Your task to perform on an android device: Go to privacy settings Image 0: 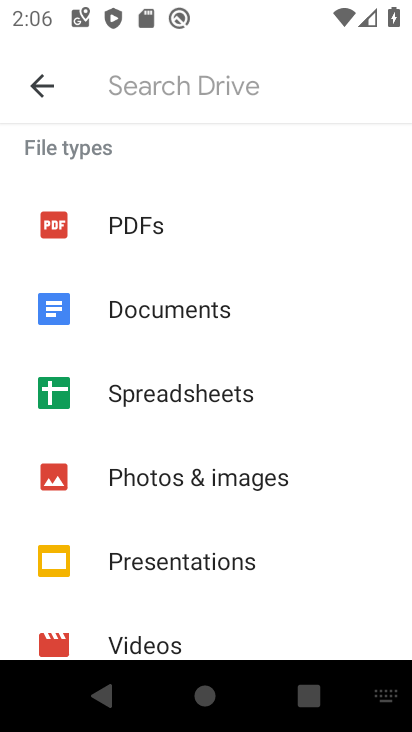
Step 0: press home button
Your task to perform on an android device: Go to privacy settings Image 1: 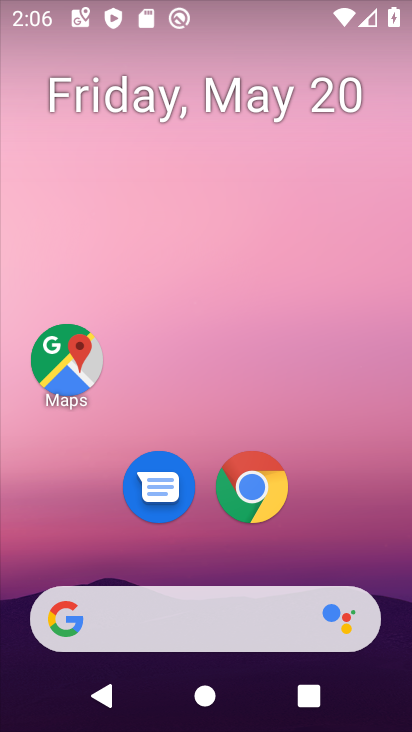
Step 1: drag from (336, 501) to (354, 35)
Your task to perform on an android device: Go to privacy settings Image 2: 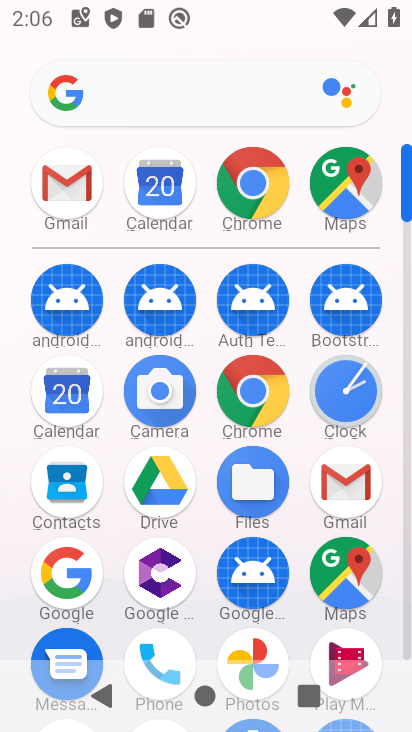
Step 2: drag from (400, 617) to (408, 297)
Your task to perform on an android device: Go to privacy settings Image 3: 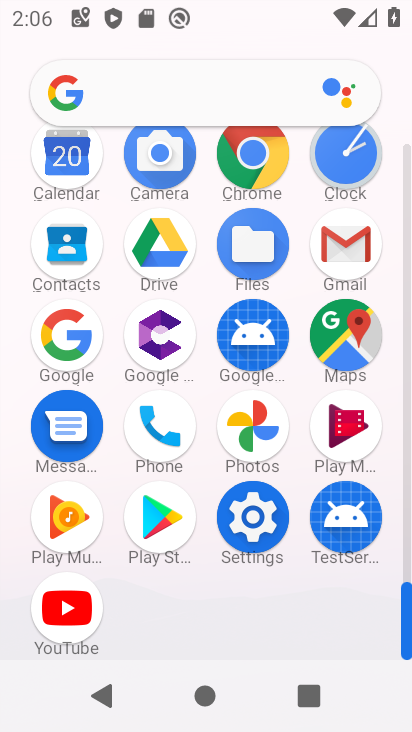
Step 3: drag from (378, 558) to (409, 276)
Your task to perform on an android device: Go to privacy settings Image 4: 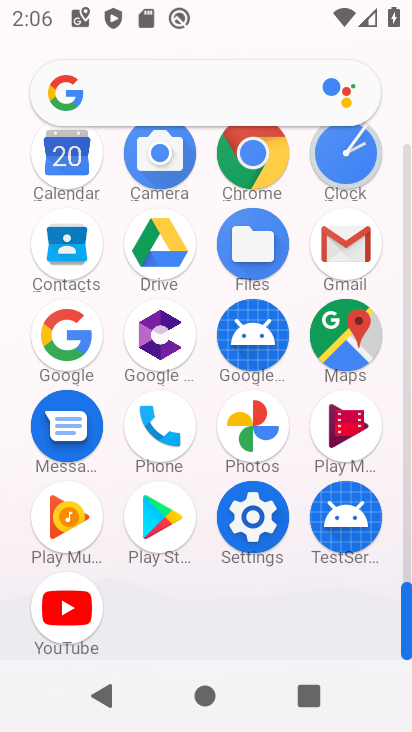
Step 4: click (261, 525)
Your task to perform on an android device: Go to privacy settings Image 5: 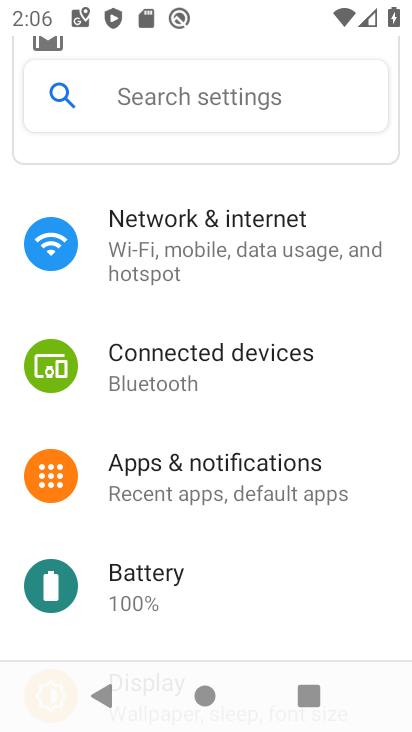
Step 5: drag from (234, 573) to (281, 153)
Your task to perform on an android device: Go to privacy settings Image 6: 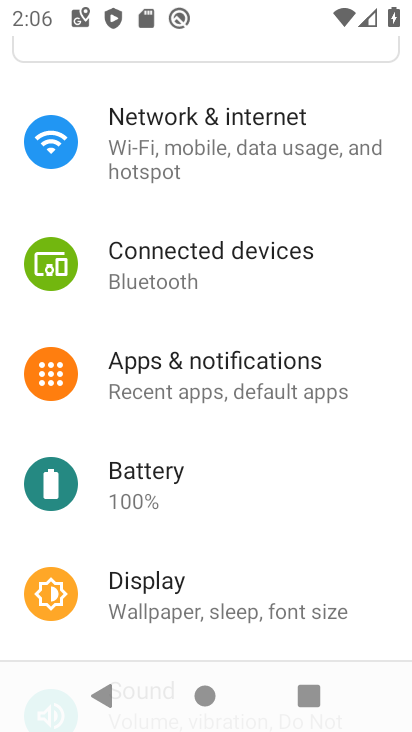
Step 6: drag from (178, 559) to (241, 152)
Your task to perform on an android device: Go to privacy settings Image 7: 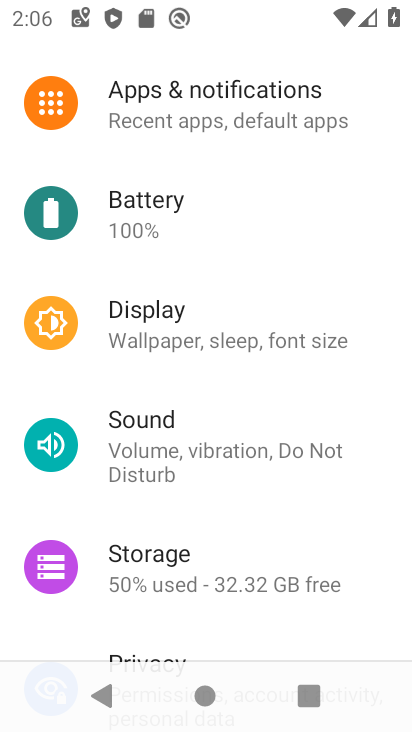
Step 7: drag from (206, 533) to (262, 195)
Your task to perform on an android device: Go to privacy settings Image 8: 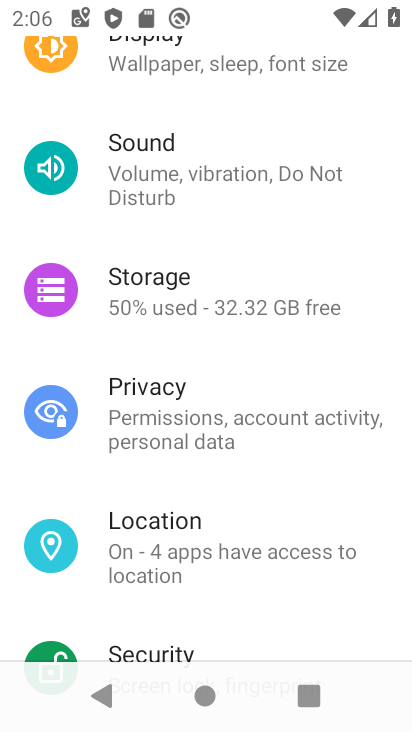
Step 8: click (184, 411)
Your task to perform on an android device: Go to privacy settings Image 9: 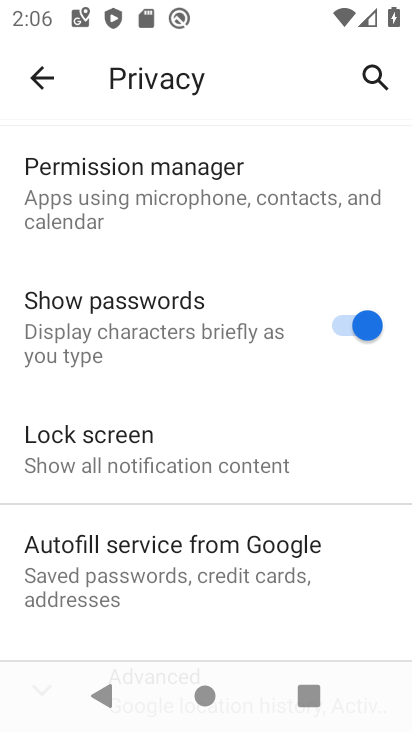
Step 9: task complete